Your task to perform on an android device: Open ESPN.com Image 0: 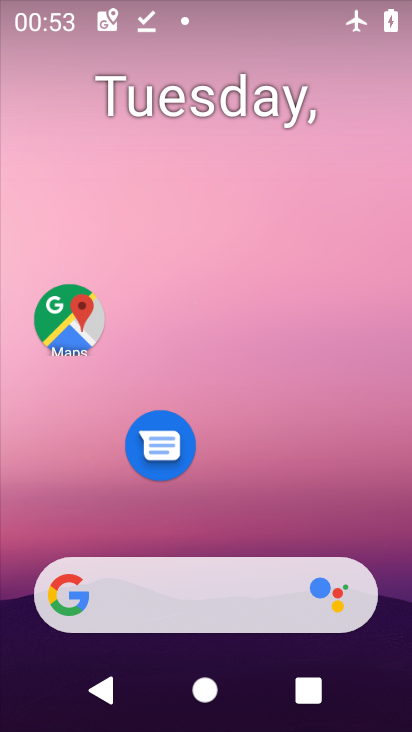
Step 0: drag from (243, 497) to (183, 64)
Your task to perform on an android device: Open ESPN.com Image 1: 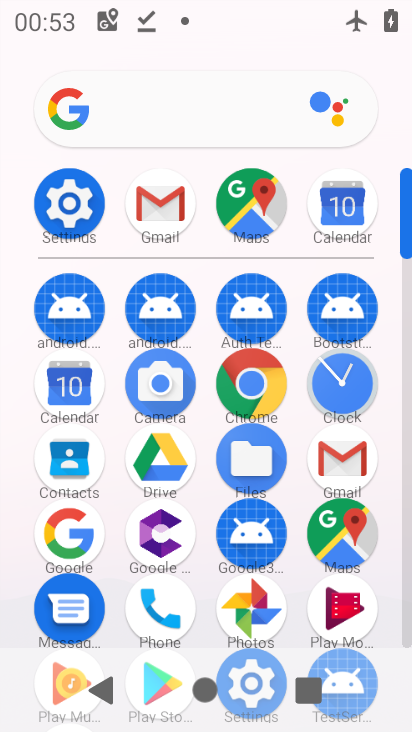
Step 1: click (241, 370)
Your task to perform on an android device: Open ESPN.com Image 2: 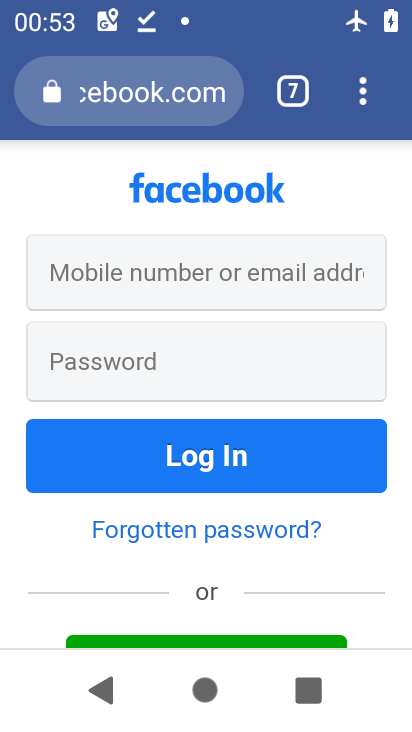
Step 2: click (365, 84)
Your task to perform on an android device: Open ESPN.com Image 3: 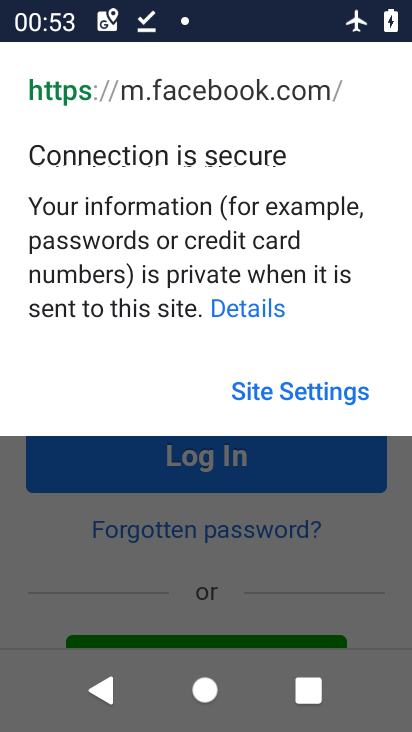
Step 3: click (332, 527)
Your task to perform on an android device: Open ESPN.com Image 4: 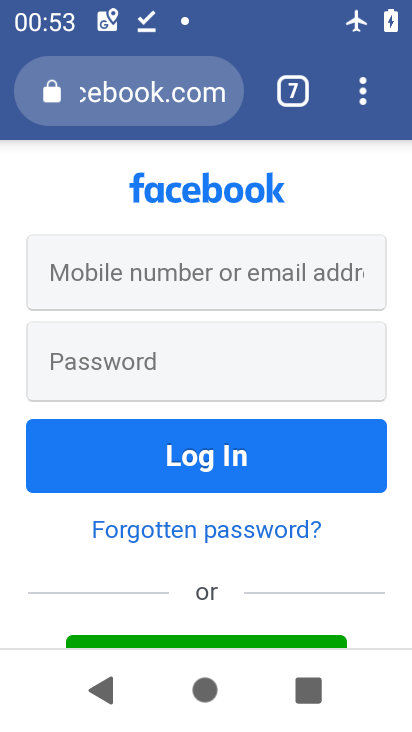
Step 4: click (363, 92)
Your task to perform on an android device: Open ESPN.com Image 5: 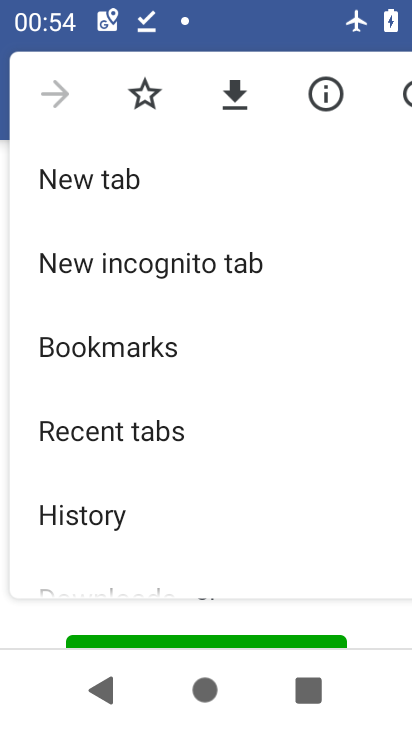
Step 5: click (103, 179)
Your task to perform on an android device: Open ESPN.com Image 6: 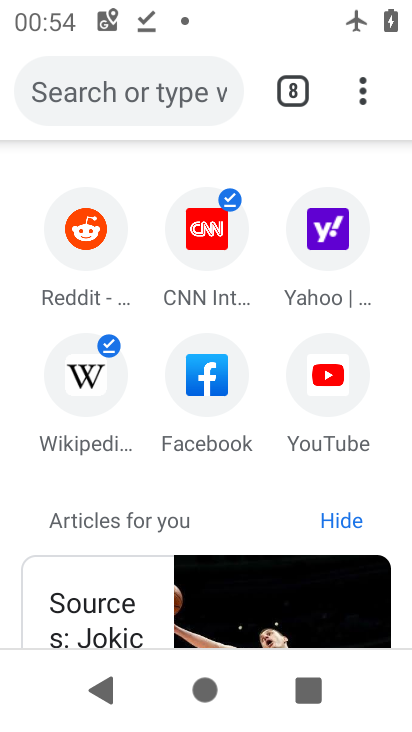
Step 6: click (139, 92)
Your task to perform on an android device: Open ESPN.com Image 7: 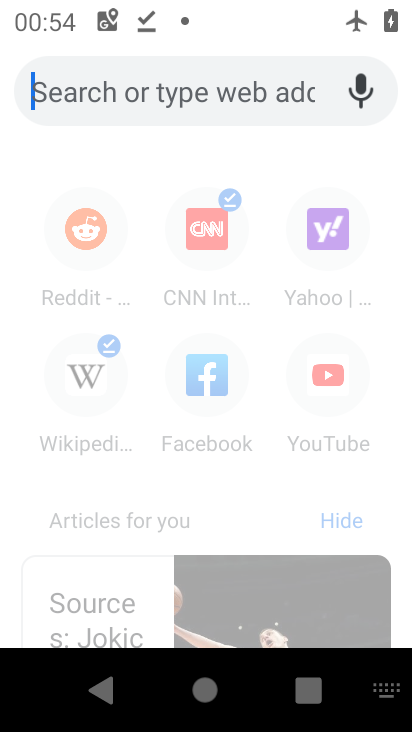
Step 7: type "espn.com"
Your task to perform on an android device: Open ESPN.com Image 8: 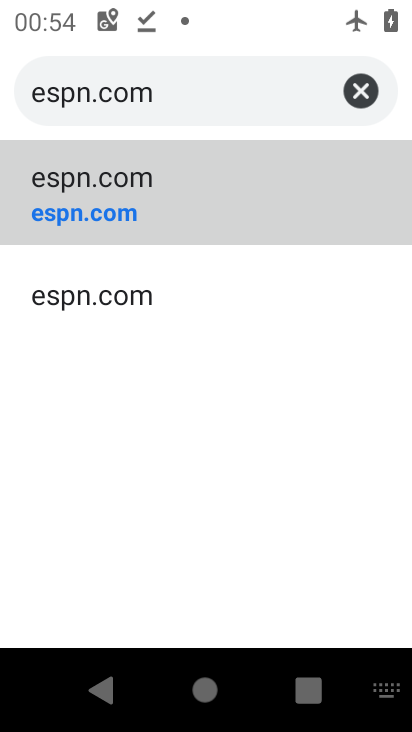
Step 8: click (113, 203)
Your task to perform on an android device: Open ESPN.com Image 9: 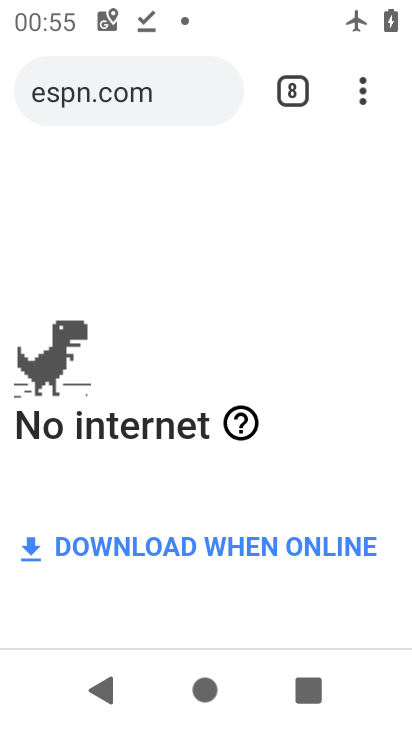
Step 9: task complete